Your task to perform on an android device: check the backup settings in the google photos Image 0: 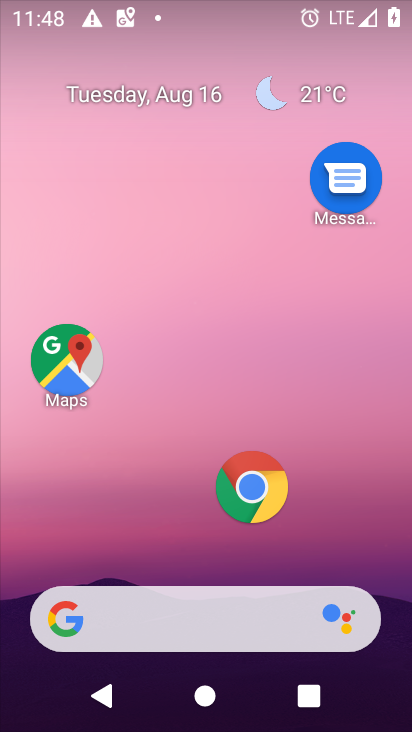
Step 0: drag from (217, 303) to (276, 0)
Your task to perform on an android device: check the backup settings in the google photos Image 1: 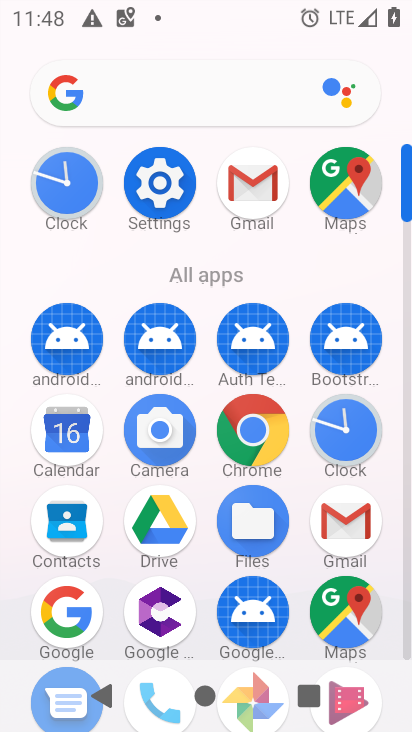
Step 1: drag from (268, 585) to (309, 173)
Your task to perform on an android device: check the backup settings in the google photos Image 2: 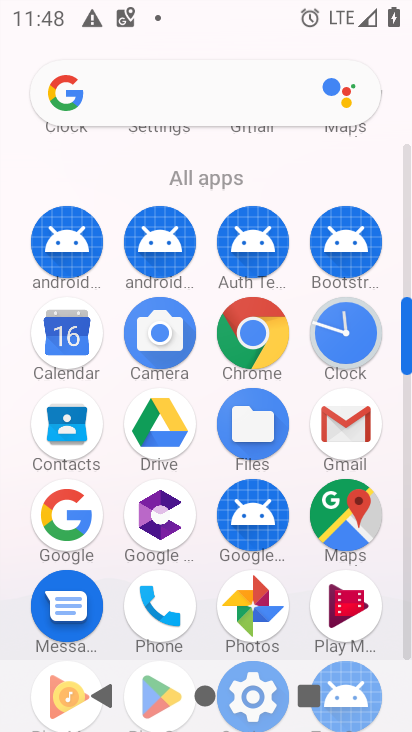
Step 2: click (254, 599)
Your task to perform on an android device: check the backup settings in the google photos Image 3: 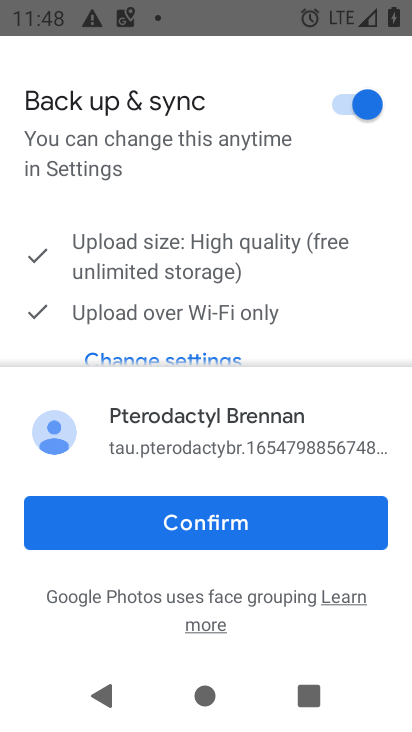
Step 3: click (190, 521)
Your task to perform on an android device: check the backup settings in the google photos Image 4: 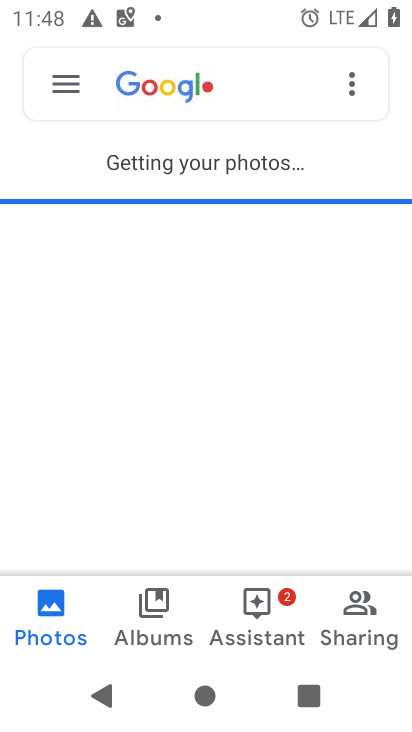
Step 4: click (56, 87)
Your task to perform on an android device: check the backup settings in the google photos Image 5: 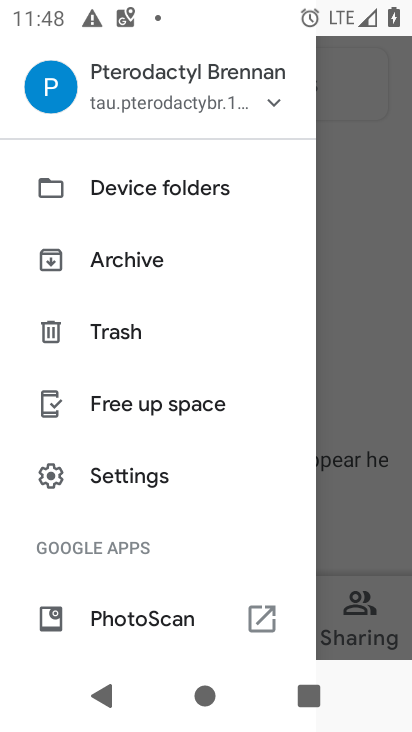
Step 5: click (160, 472)
Your task to perform on an android device: check the backup settings in the google photos Image 6: 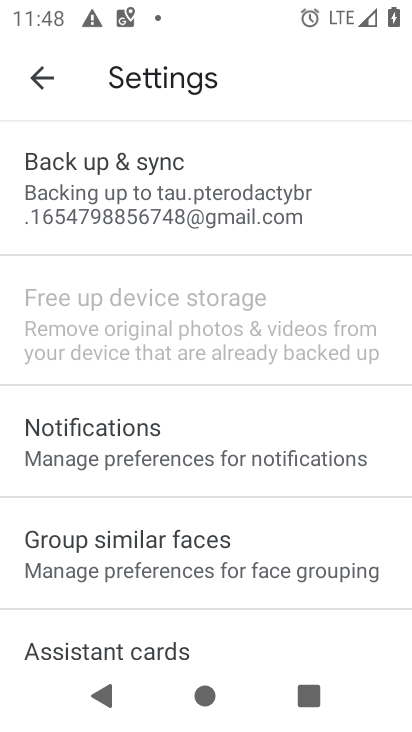
Step 6: click (222, 173)
Your task to perform on an android device: check the backup settings in the google photos Image 7: 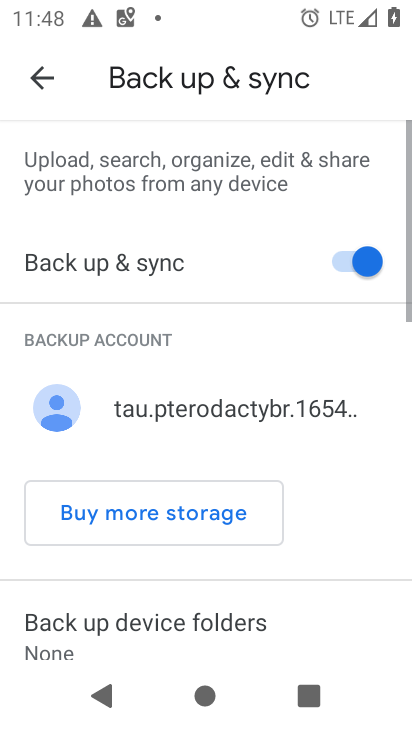
Step 7: task complete